Your task to perform on an android device: Search for Italian restaurants on Maps Image 0: 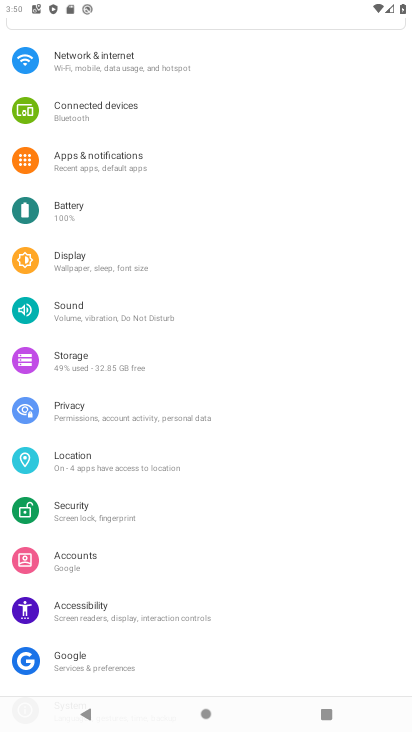
Step 0: press home button
Your task to perform on an android device: Search for Italian restaurants on Maps Image 1: 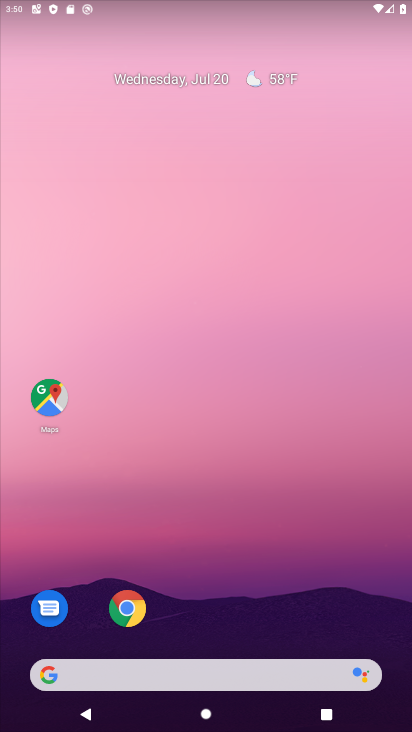
Step 1: click (54, 421)
Your task to perform on an android device: Search for Italian restaurants on Maps Image 2: 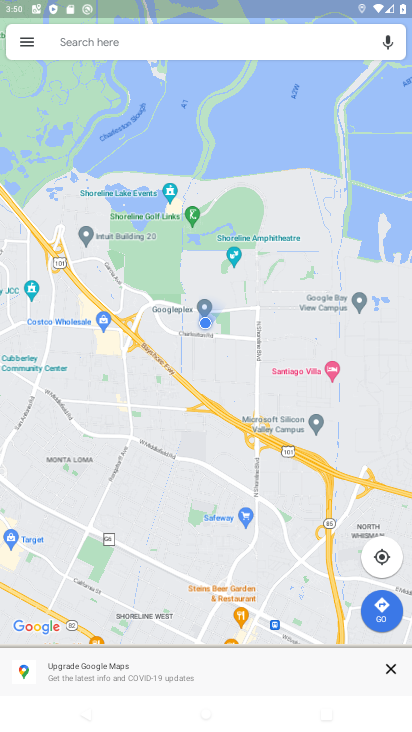
Step 2: click (153, 41)
Your task to perform on an android device: Search for Italian restaurants on Maps Image 3: 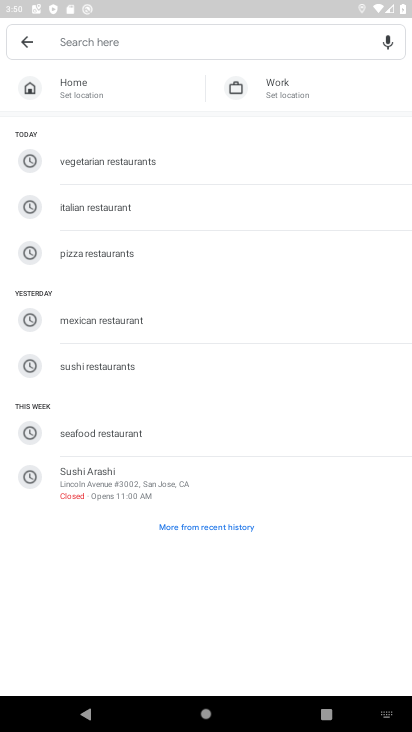
Step 3: click (163, 205)
Your task to perform on an android device: Search for Italian restaurants on Maps Image 4: 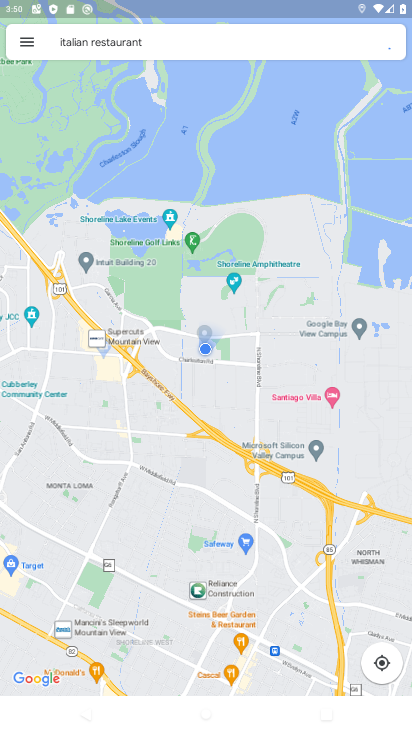
Step 4: task complete